Your task to perform on an android device: Go to ESPN.com Image 0: 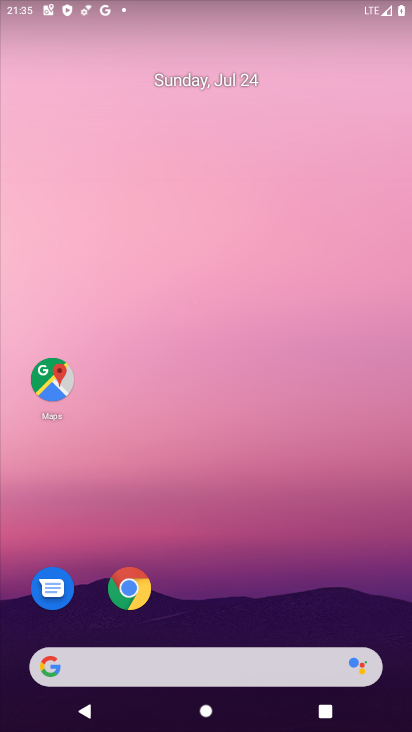
Step 0: drag from (209, 645) to (149, 171)
Your task to perform on an android device: Go to ESPN.com Image 1: 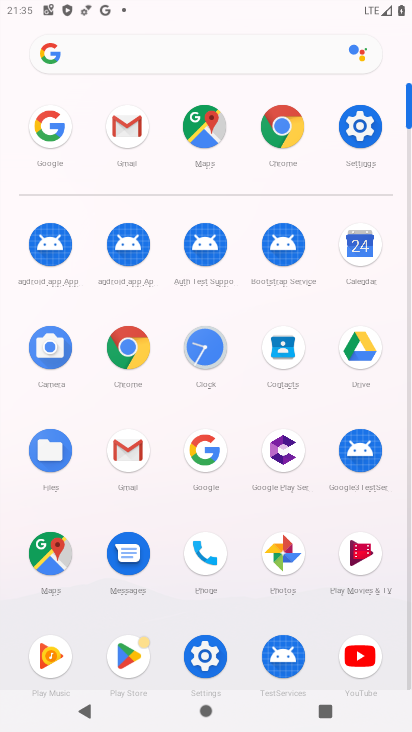
Step 1: click (281, 122)
Your task to perform on an android device: Go to ESPN.com Image 2: 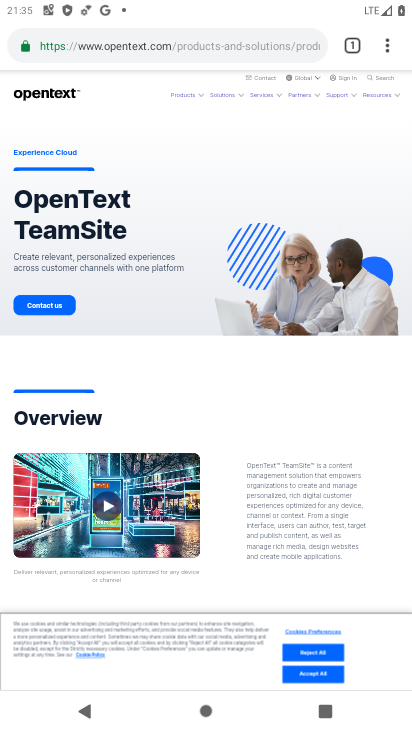
Step 2: click (183, 52)
Your task to perform on an android device: Go to ESPN.com Image 3: 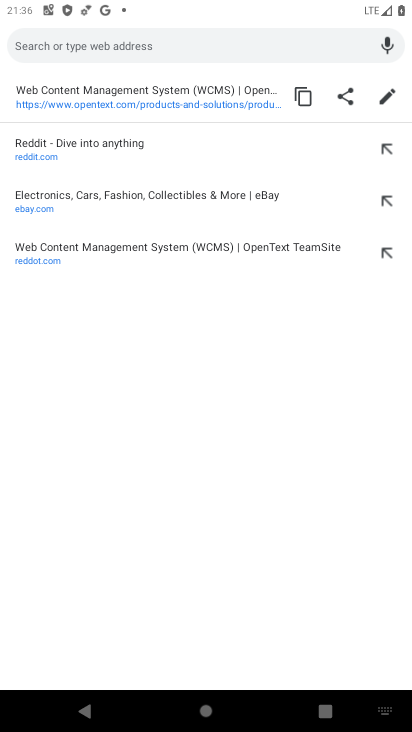
Step 3: type "espn.com"
Your task to perform on an android device: Go to ESPN.com Image 4: 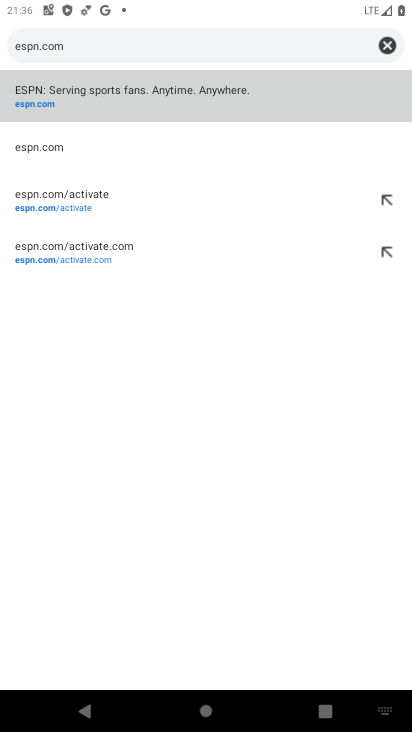
Step 4: click (184, 98)
Your task to perform on an android device: Go to ESPN.com Image 5: 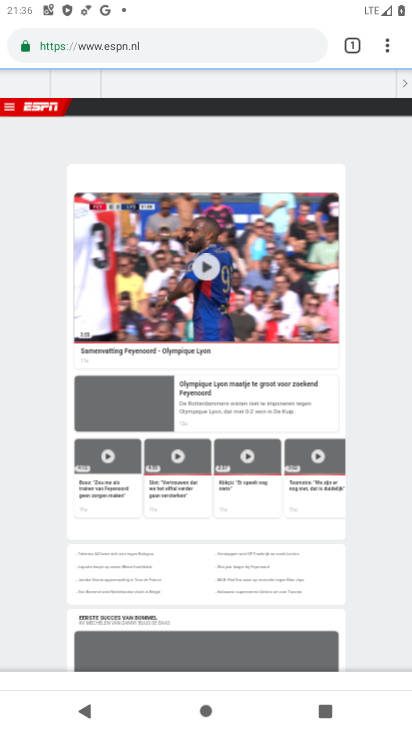
Step 5: task complete